Your task to perform on an android device: open chrome and create a bookmark for the current page Image 0: 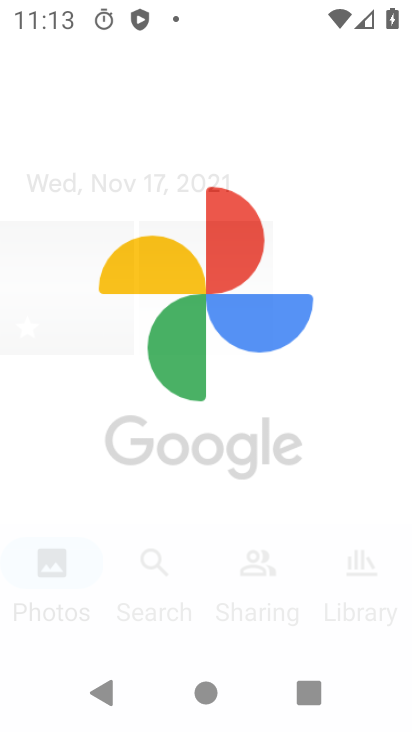
Step 0: click (344, 525)
Your task to perform on an android device: open chrome and create a bookmark for the current page Image 1: 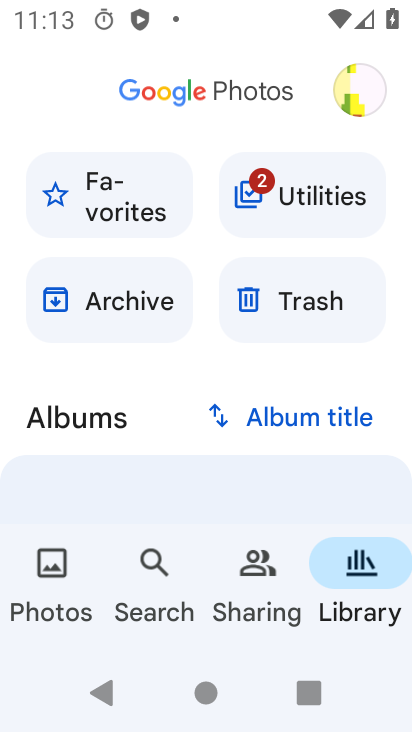
Step 1: press back button
Your task to perform on an android device: open chrome and create a bookmark for the current page Image 2: 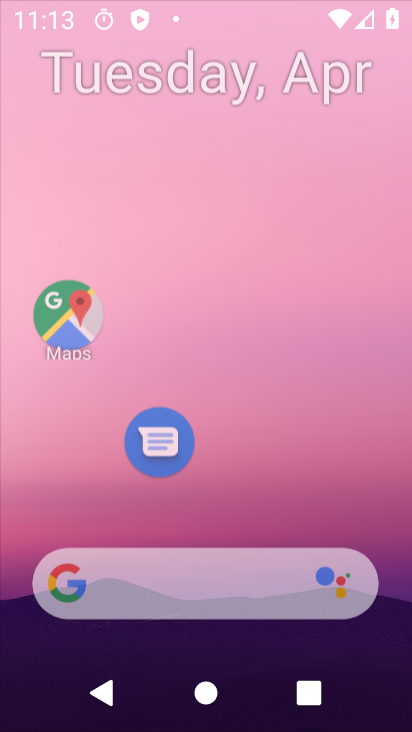
Step 2: press back button
Your task to perform on an android device: open chrome and create a bookmark for the current page Image 3: 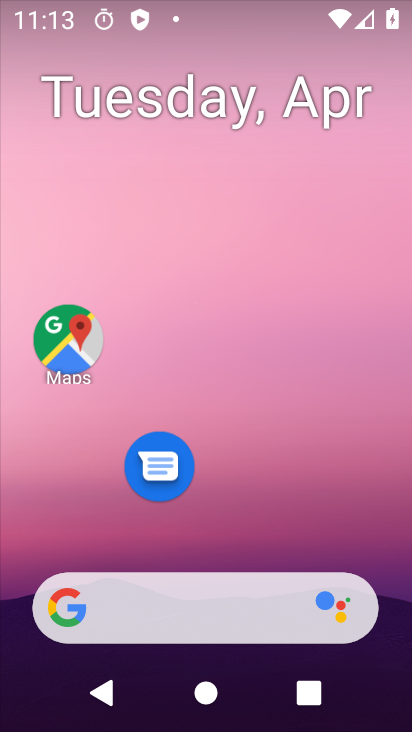
Step 3: drag from (230, 522) to (298, 130)
Your task to perform on an android device: open chrome and create a bookmark for the current page Image 4: 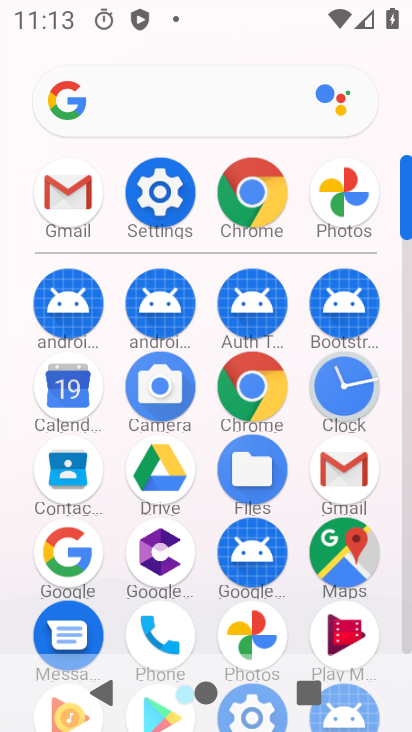
Step 4: click (263, 203)
Your task to perform on an android device: open chrome and create a bookmark for the current page Image 5: 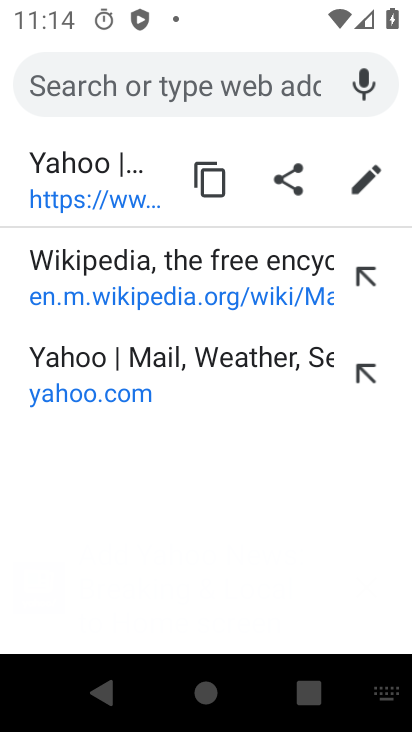
Step 5: click (130, 162)
Your task to perform on an android device: open chrome and create a bookmark for the current page Image 6: 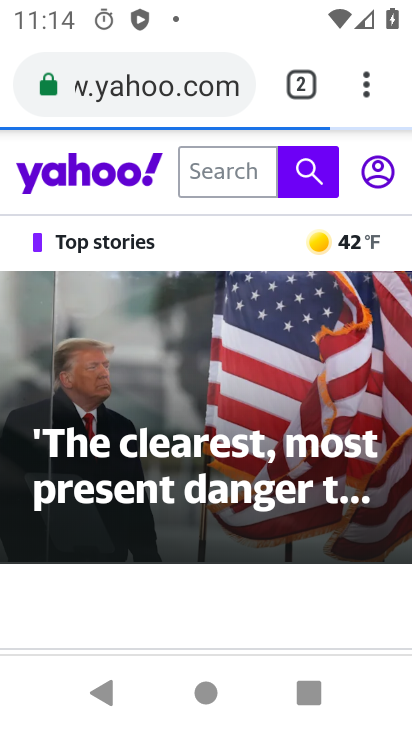
Step 6: click (370, 79)
Your task to perform on an android device: open chrome and create a bookmark for the current page Image 7: 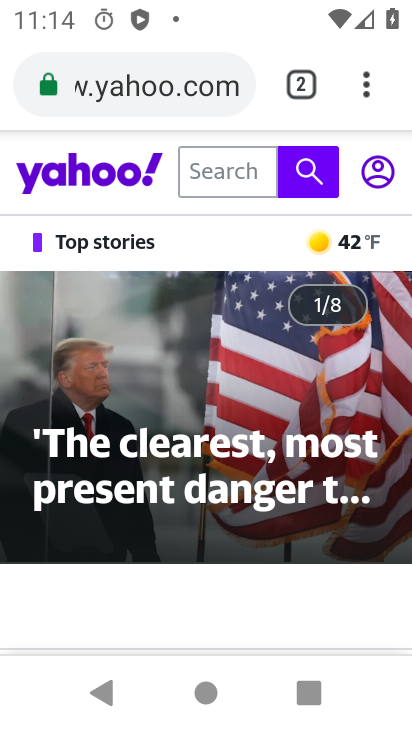
Step 7: click (361, 97)
Your task to perform on an android device: open chrome and create a bookmark for the current page Image 8: 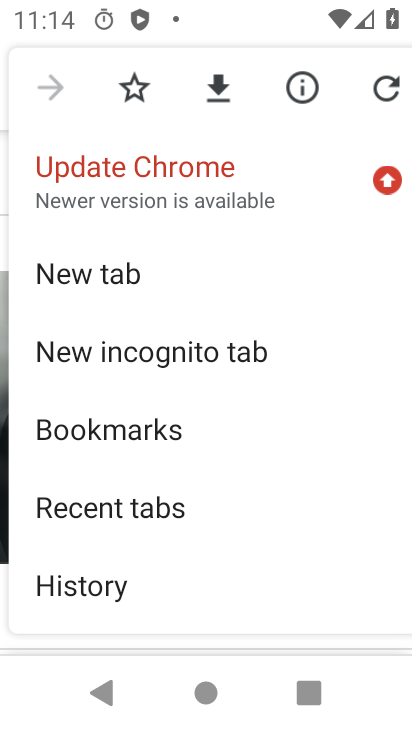
Step 8: click (134, 112)
Your task to perform on an android device: open chrome and create a bookmark for the current page Image 9: 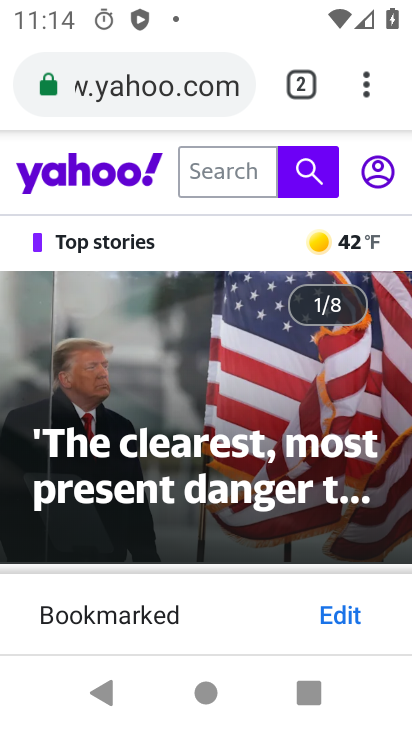
Step 9: task complete